Your task to perform on an android device: Show me popular videos on Youtube Image 0: 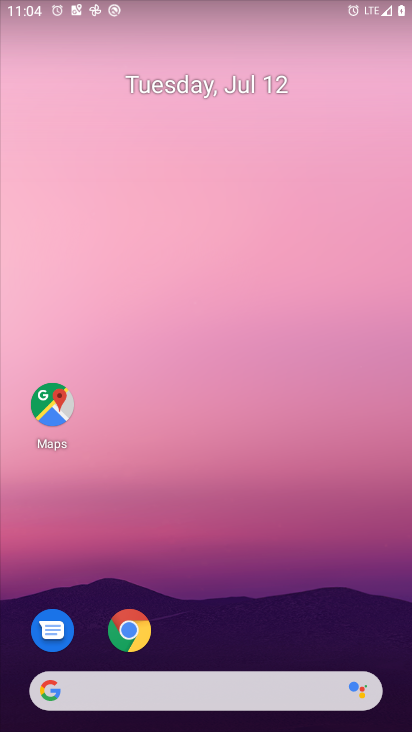
Step 0: press home button
Your task to perform on an android device: Show me popular videos on Youtube Image 1: 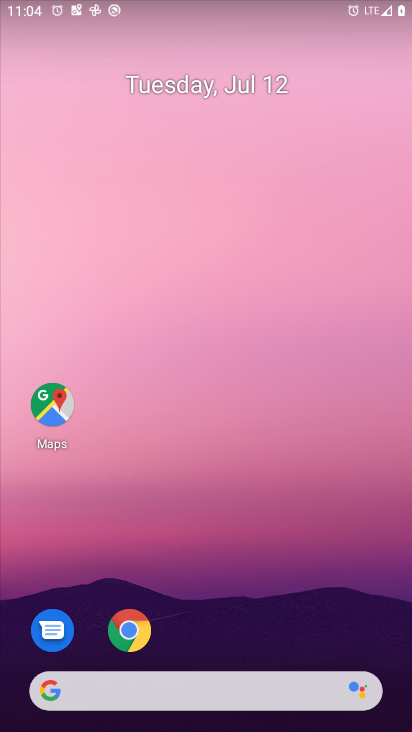
Step 1: drag from (292, 542) to (316, 95)
Your task to perform on an android device: Show me popular videos on Youtube Image 2: 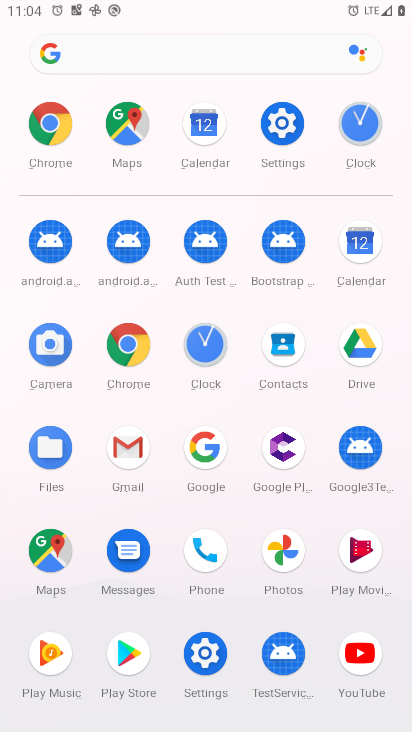
Step 2: click (356, 657)
Your task to perform on an android device: Show me popular videos on Youtube Image 3: 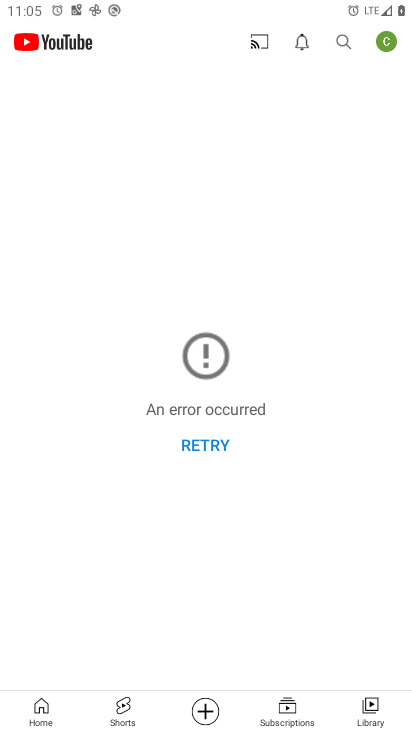
Step 3: click (194, 445)
Your task to perform on an android device: Show me popular videos on Youtube Image 4: 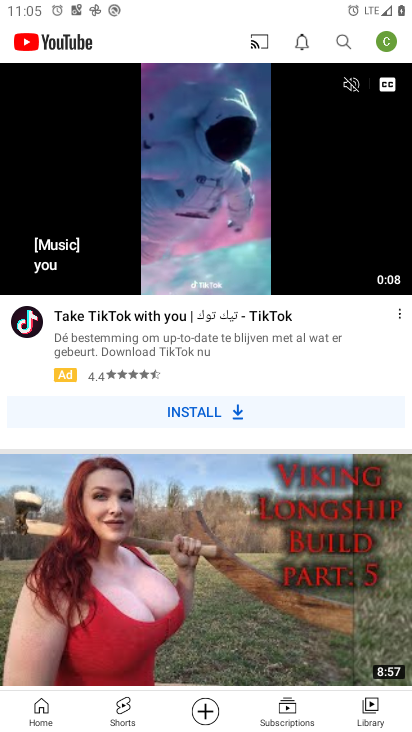
Step 4: drag from (331, 350) to (290, 614)
Your task to perform on an android device: Show me popular videos on Youtube Image 5: 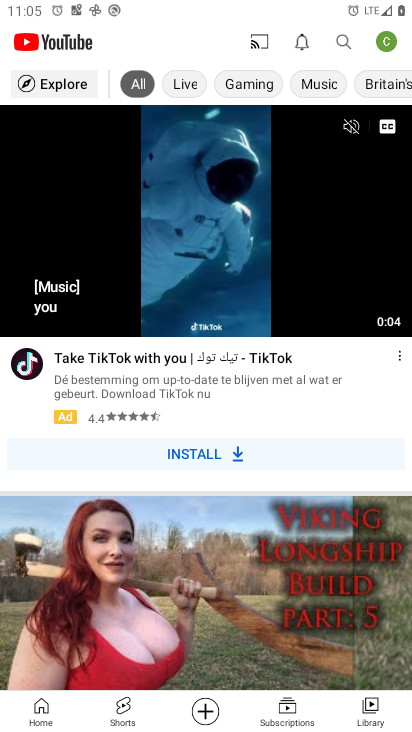
Step 5: click (53, 89)
Your task to perform on an android device: Show me popular videos on Youtube Image 6: 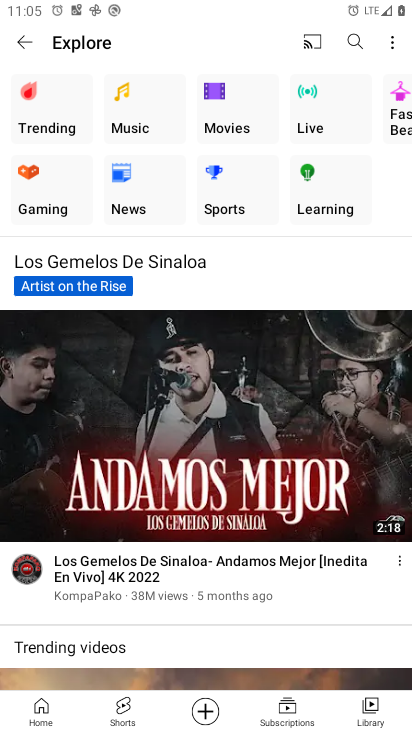
Step 6: click (45, 97)
Your task to perform on an android device: Show me popular videos on Youtube Image 7: 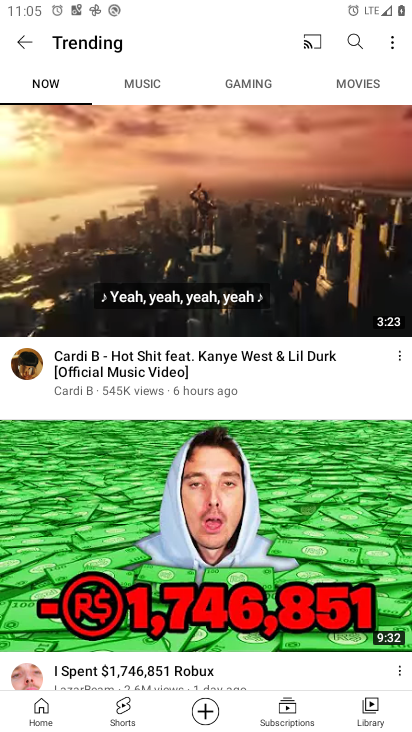
Step 7: task complete